Your task to perform on an android device: Open the calendar app, open the side menu, and click the "Day" option Image 0: 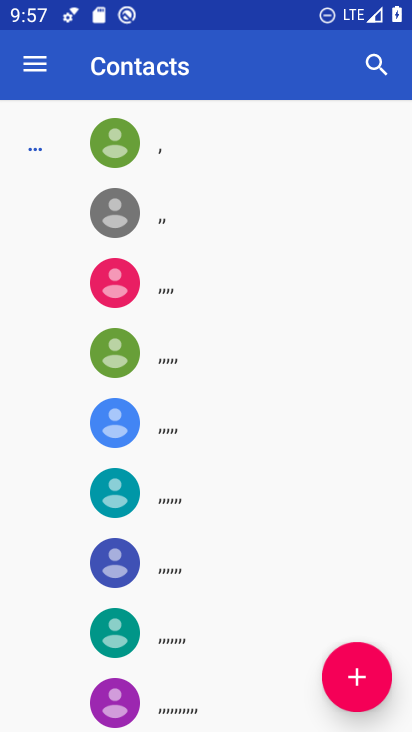
Step 0: press home button
Your task to perform on an android device: Open the calendar app, open the side menu, and click the "Day" option Image 1: 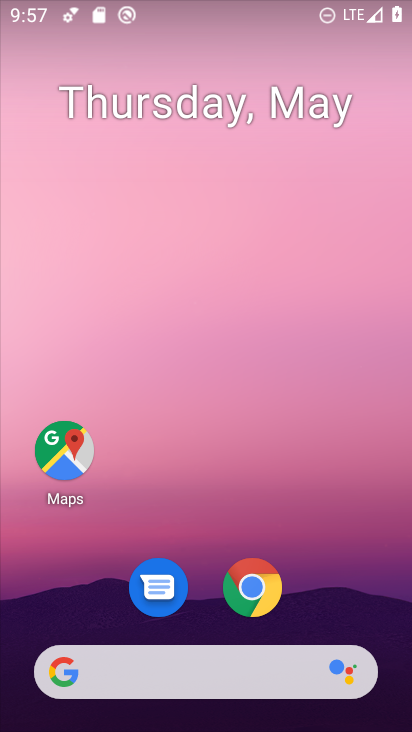
Step 1: drag from (339, 617) to (0, 148)
Your task to perform on an android device: Open the calendar app, open the side menu, and click the "Day" option Image 2: 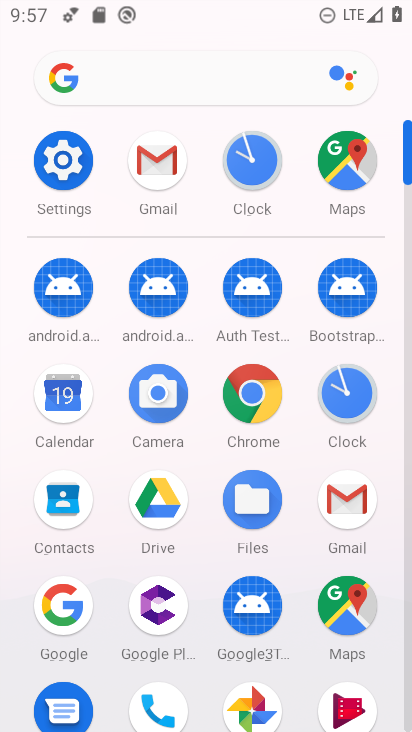
Step 2: click (66, 386)
Your task to perform on an android device: Open the calendar app, open the side menu, and click the "Day" option Image 3: 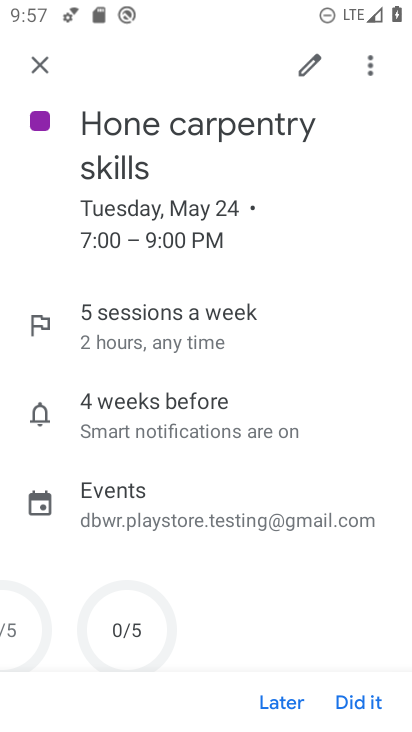
Step 3: click (34, 69)
Your task to perform on an android device: Open the calendar app, open the side menu, and click the "Day" option Image 4: 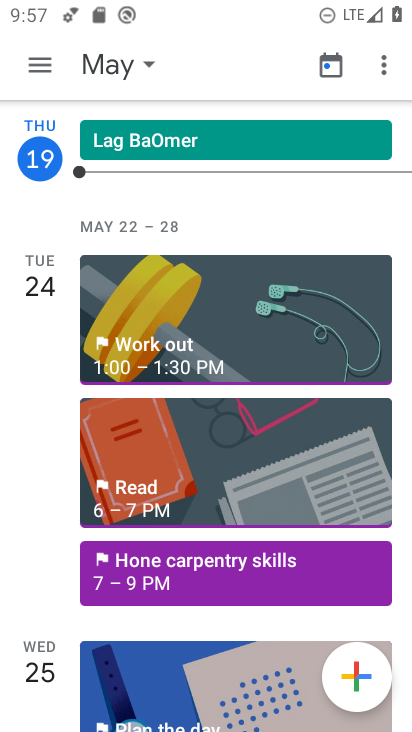
Step 4: click (34, 69)
Your task to perform on an android device: Open the calendar app, open the side menu, and click the "Day" option Image 5: 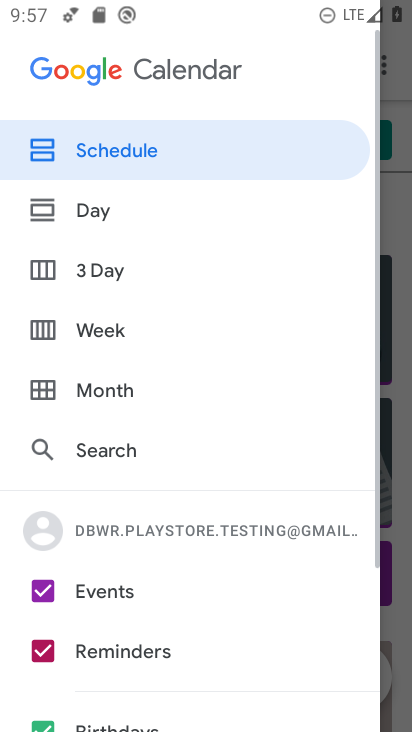
Step 5: click (76, 219)
Your task to perform on an android device: Open the calendar app, open the side menu, and click the "Day" option Image 6: 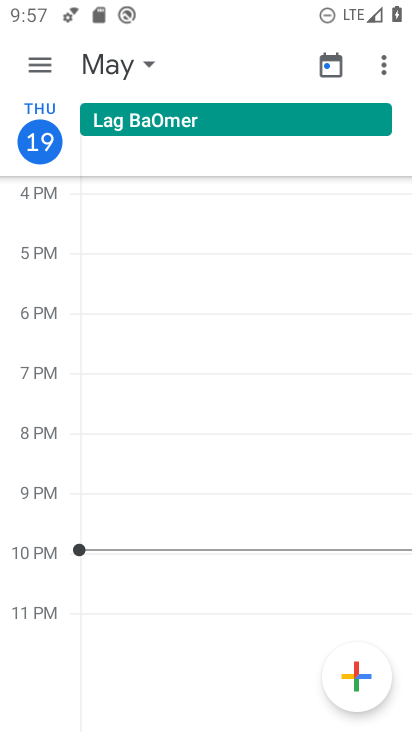
Step 6: task complete